Your task to perform on an android device: see tabs open on other devices in the chrome app Image 0: 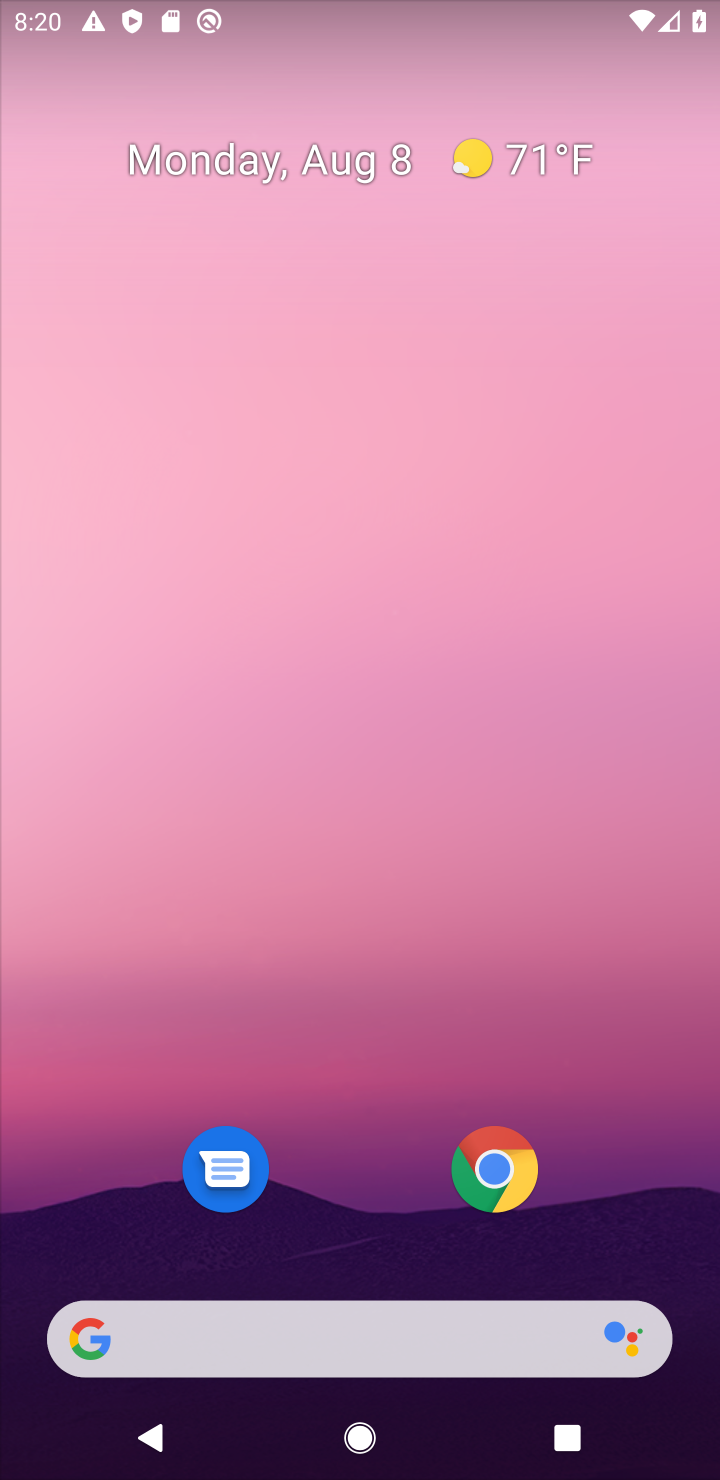
Step 0: click (485, 1185)
Your task to perform on an android device: see tabs open on other devices in the chrome app Image 1: 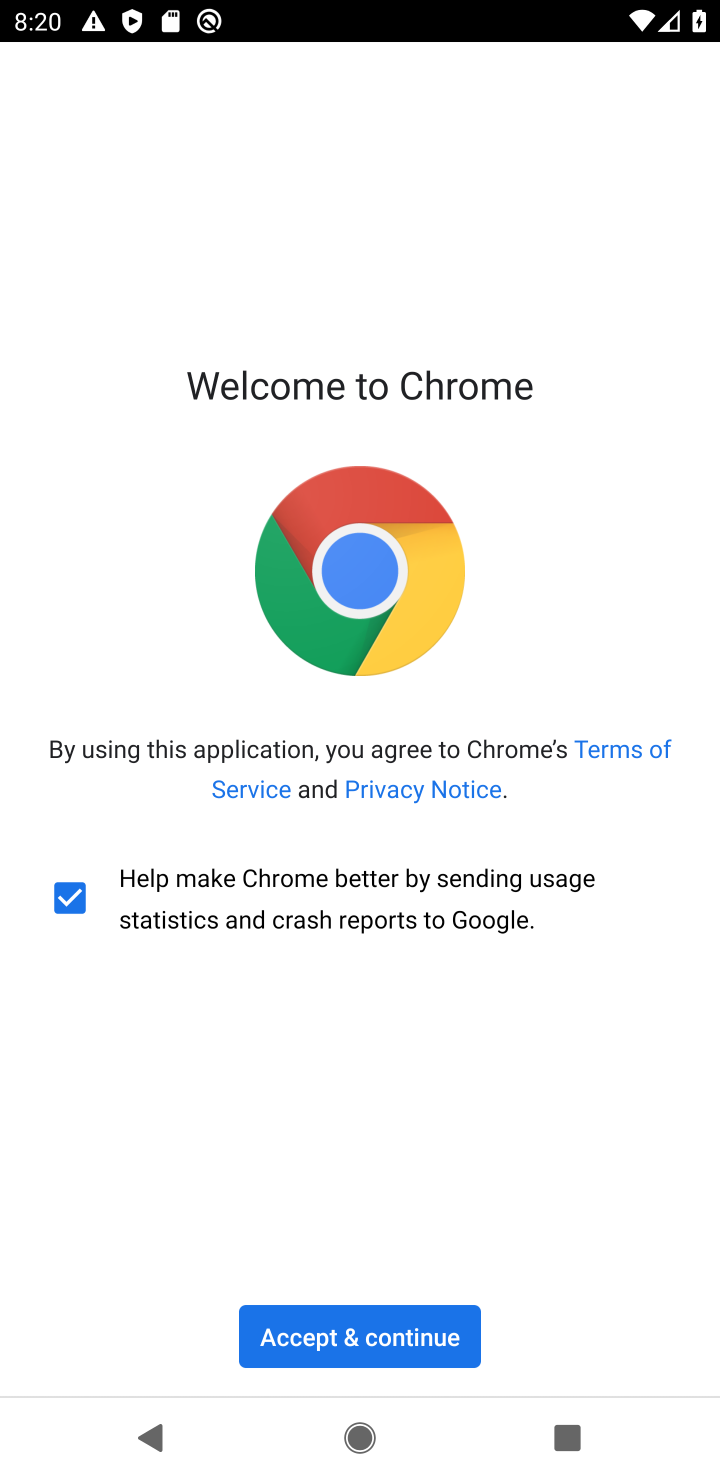
Step 1: click (497, 1189)
Your task to perform on an android device: see tabs open on other devices in the chrome app Image 2: 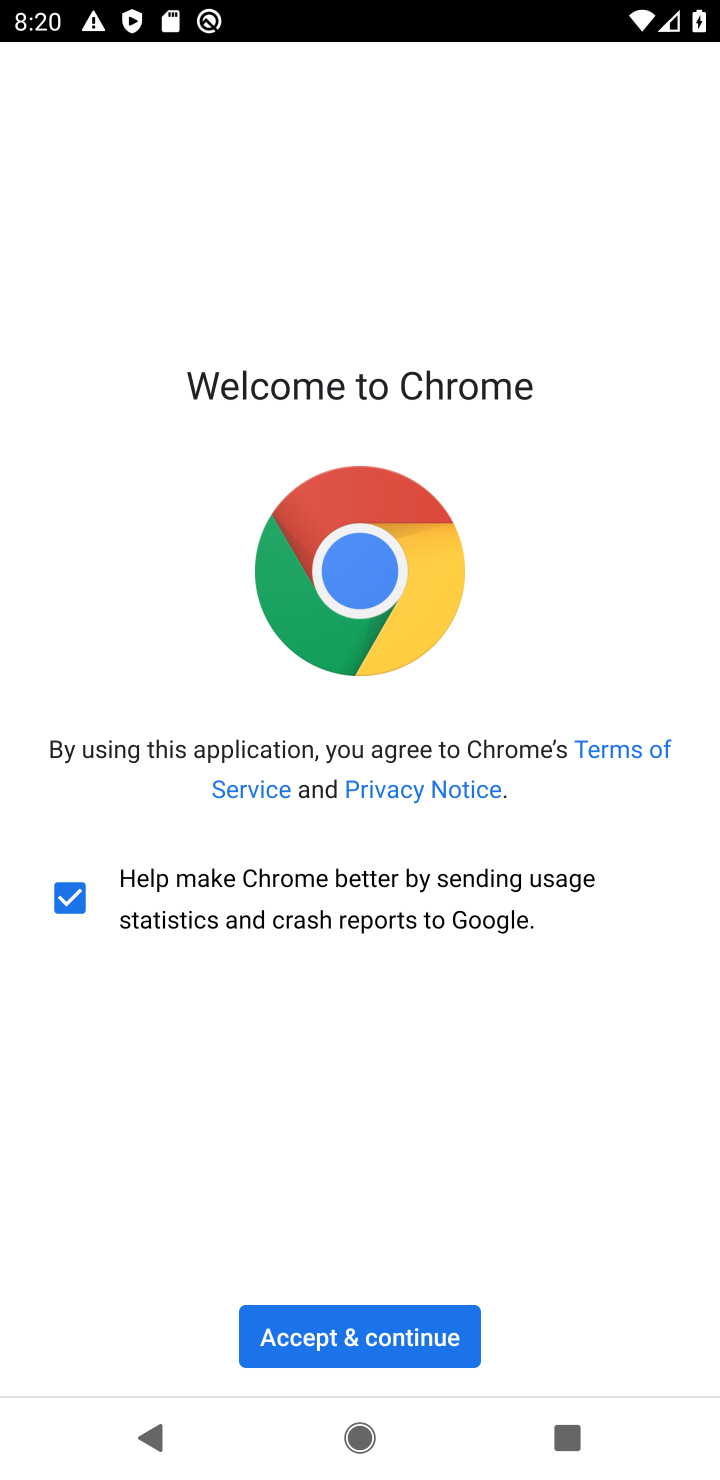
Step 2: click (416, 1328)
Your task to perform on an android device: see tabs open on other devices in the chrome app Image 3: 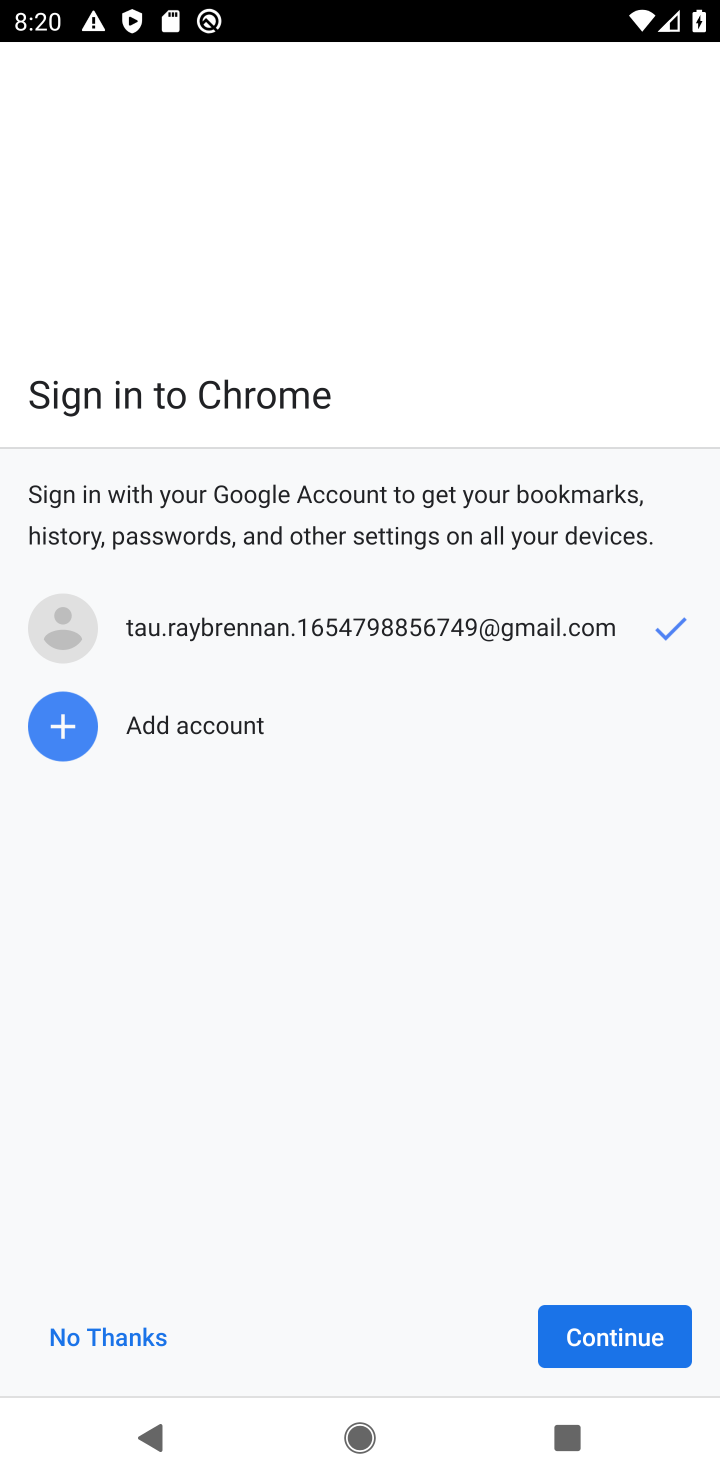
Step 3: click (600, 1334)
Your task to perform on an android device: see tabs open on other devices in the chrome app Image 4: 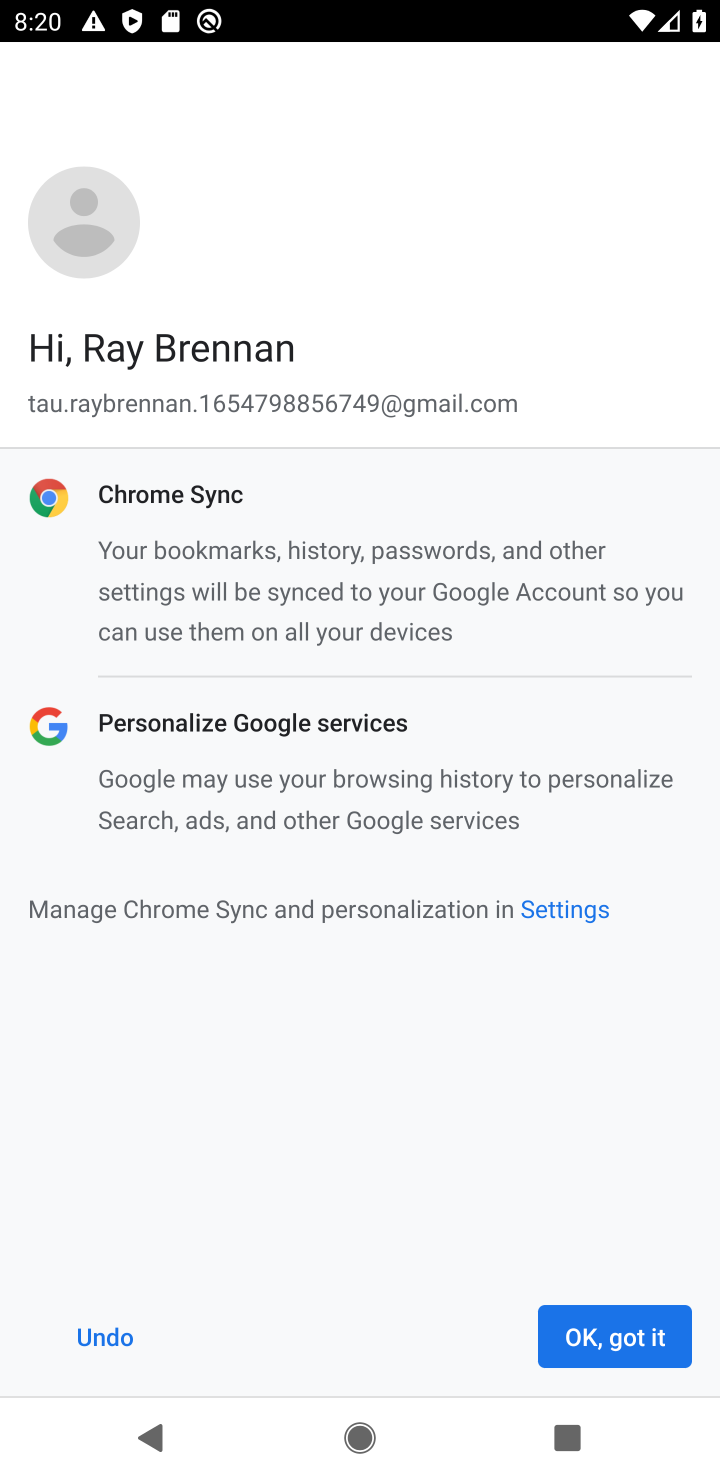
Step 4: click (600, 1334)
Your task to perform on an android device: see tabs open on other devices in the chrome app Image 5: 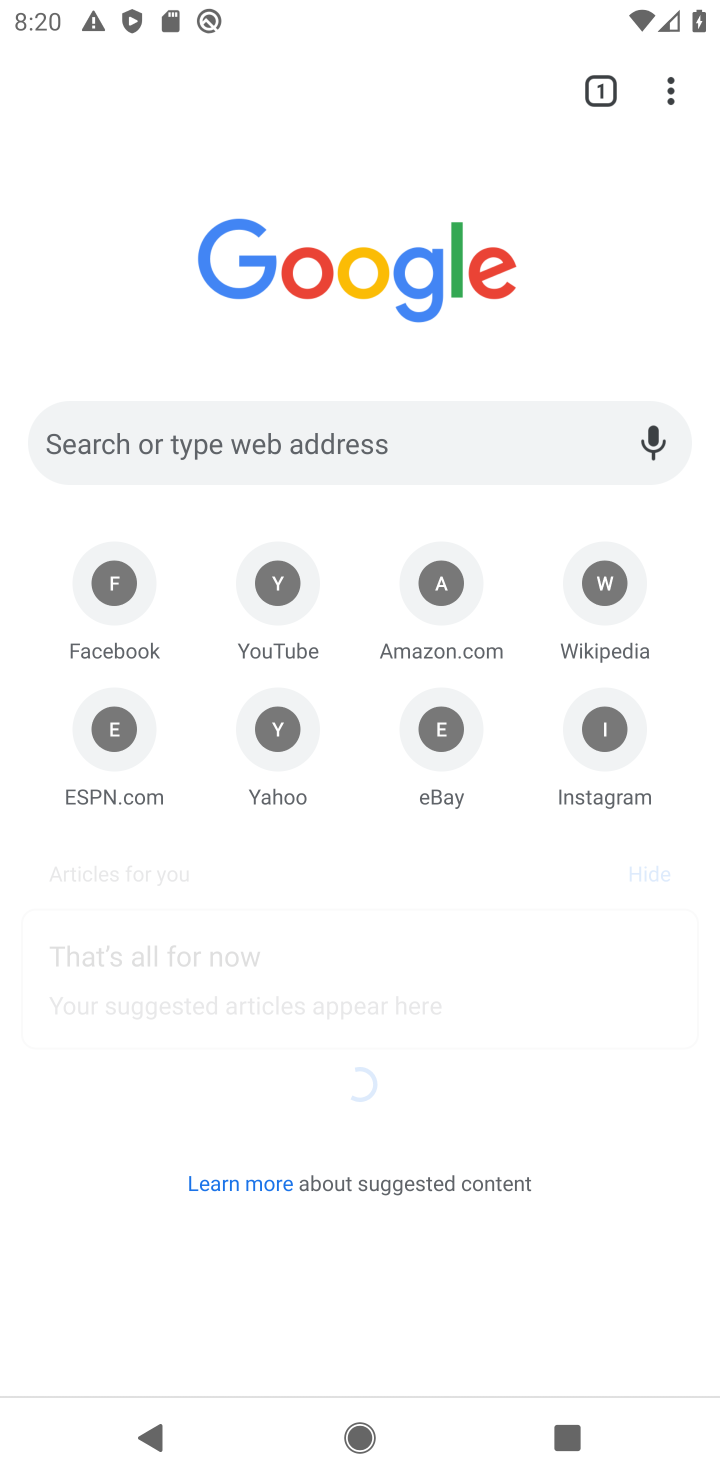
Step 5: task complete